Your task to perform on an android device: Open the stopwatch Image 0: 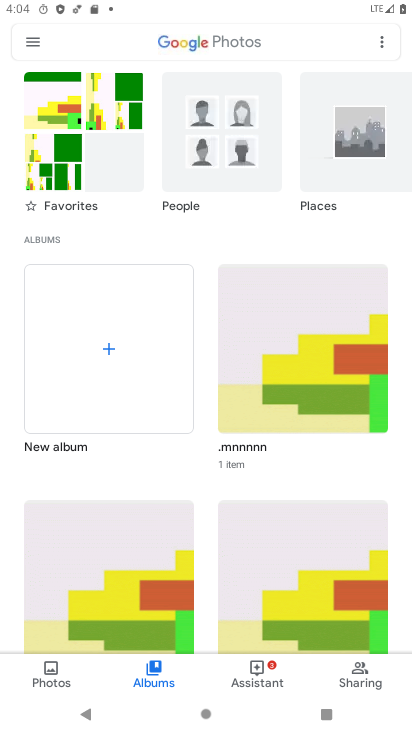
Step 0: press home button
Your task to perform on an android device: Open the stopwatch Image 1: 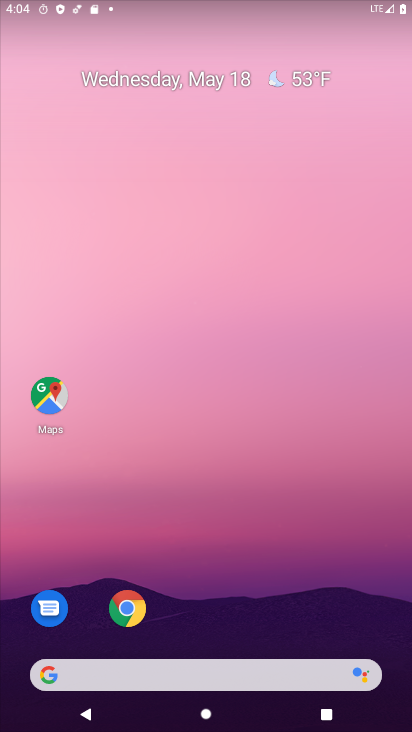
Step 1: drag from (174, 668) to (223, 0)
Your task to perform on an android device: Open the stopwatch Image 2: 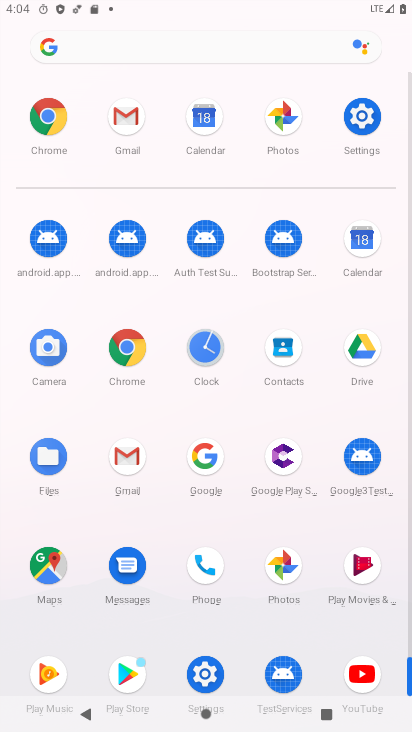
Step 2: click (192, 342)
Your task to perform on an android device: Open the stopwatch Image 3: 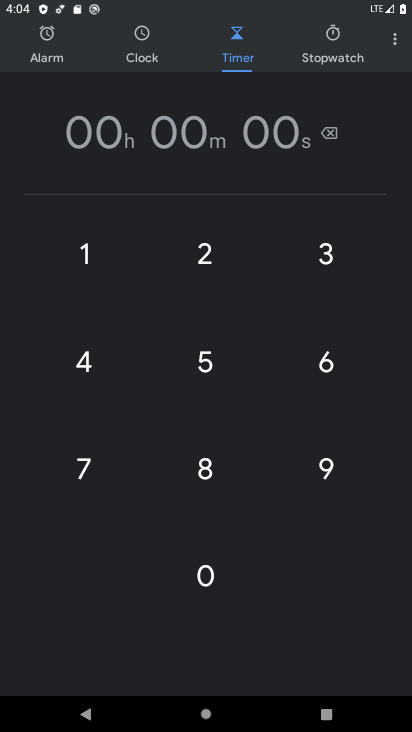
Step 3: click (330, 46)
Your task to perform on an android device: Open the stopwatch Image 4: 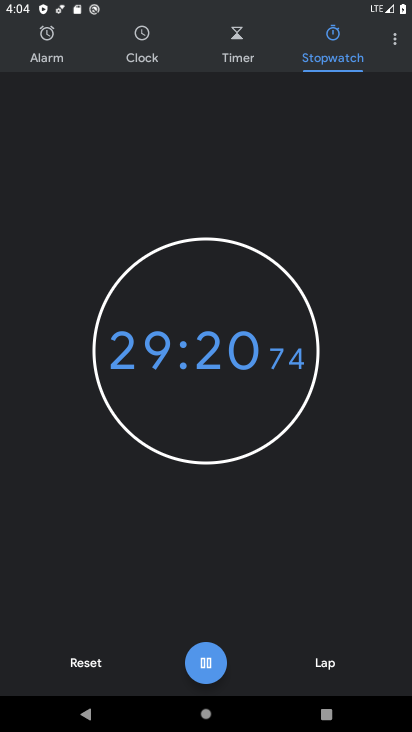
Step 4: task complete